Your task to perform on an android device: turn on the 24-hour format for clock Image 0: 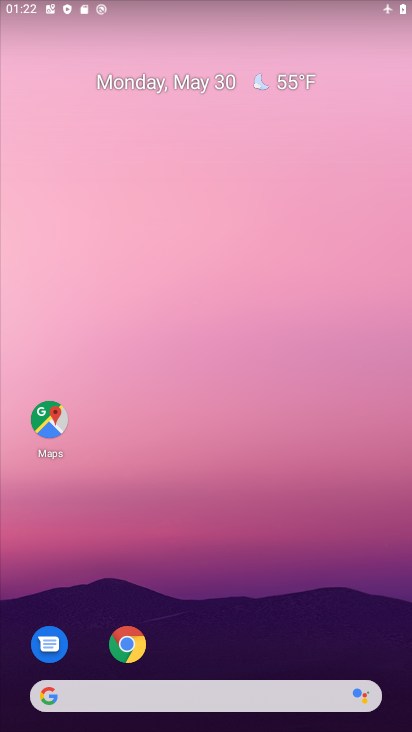
Step 0: drag from (317, 648) to (336, 270)
Your task to perform on an android device: turn on the 24-hour format for clock Image 1: 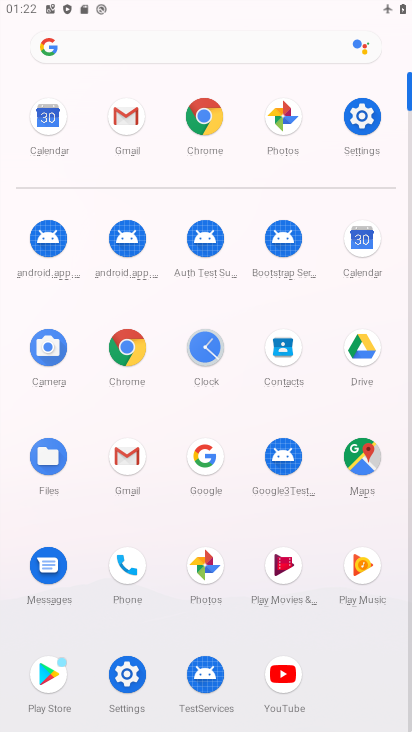
Step 1: click (197, 365)
Your task to perform on an android device: turn on the 24-hour format for clock Image 2: 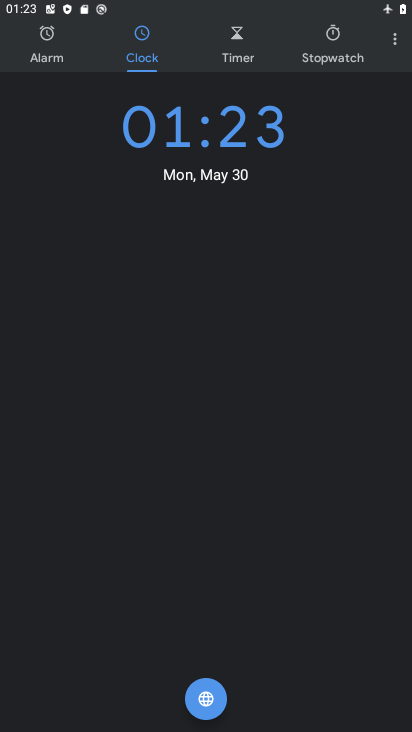
Step 2: click (400, 47)
Your task to perform on an android device: turn on the 24-hour format for clock Image 3: 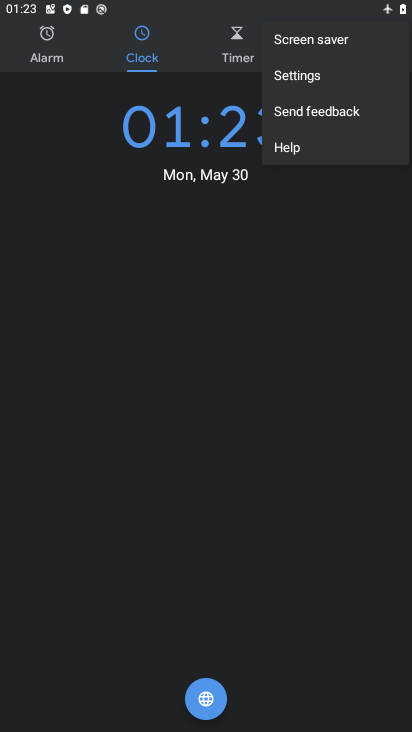
Step 3: click (310, 79)
Your task to perform on an android device: turn on the 24-hour format for clock Image 4: 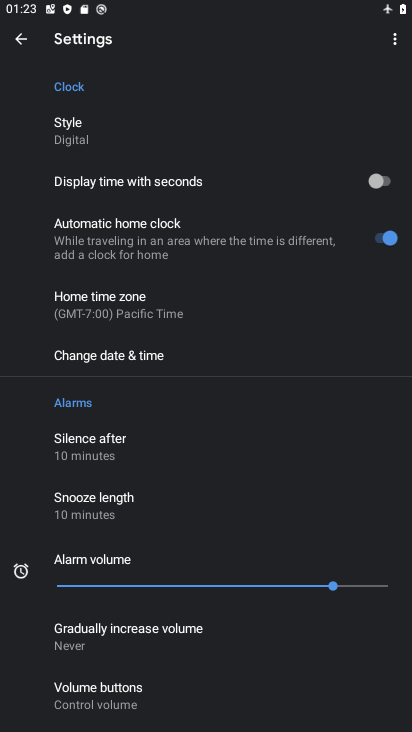
Step 4: click (170, 354)
Your task to perform on an android device: turn on the 24-hour format for clock Image 5: 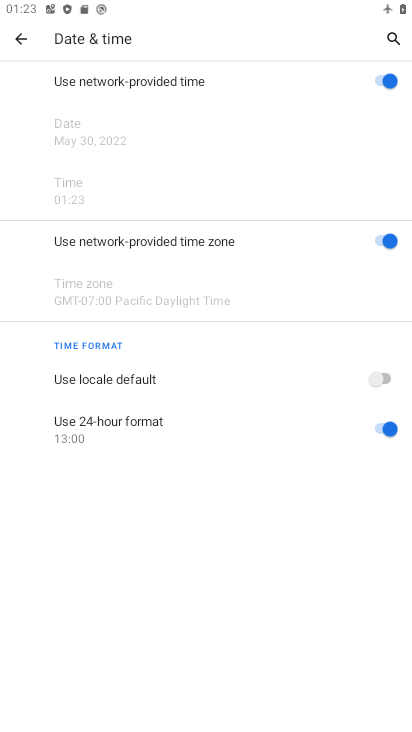
Step 5: task complete